Your task to perform on an android device: Go to internet settings Image 0: 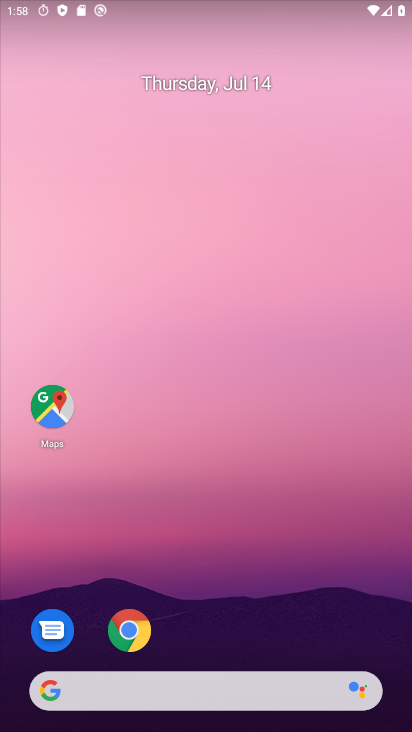
Step 0: drag from (196, 624) to (209, 32)
Your task to perform on an android device: Go to internet settings Image 1: 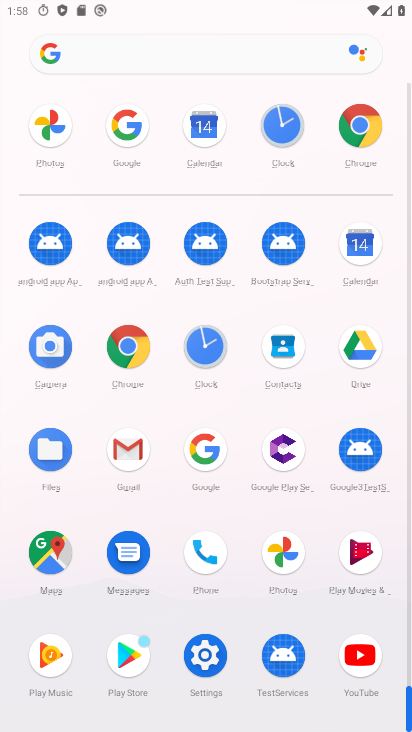
Step 1: click (205, 650)
Your task to perform on an android device: Go to internet settings Image 2: 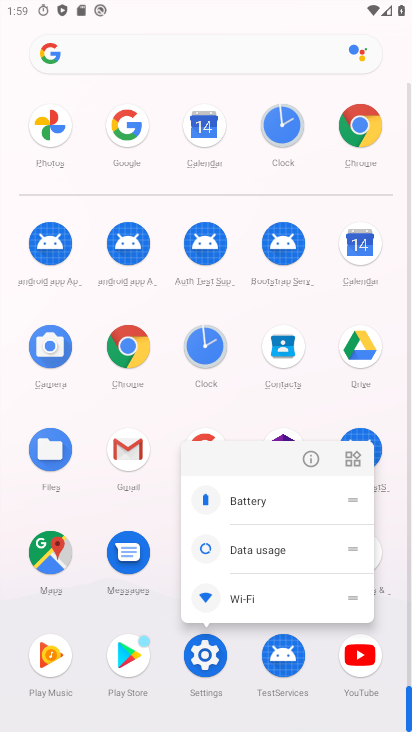
Step 2: click (316, 454)
Your task to perform on an android device: Go to internet settings Image 3: 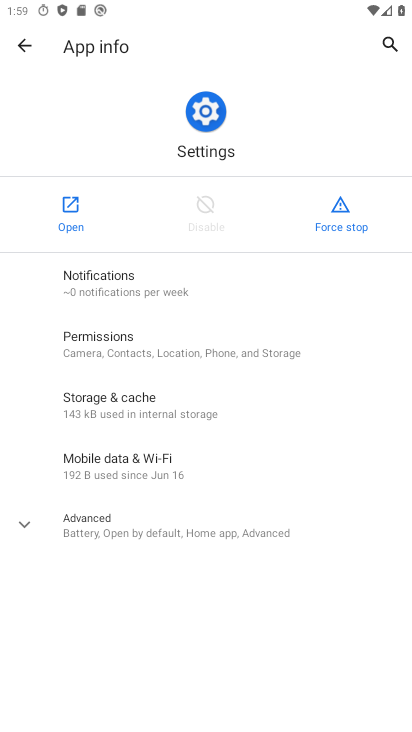
Step 3: click (77, 222)
Your task to perform on an android device: Go to internet settings Image 4: 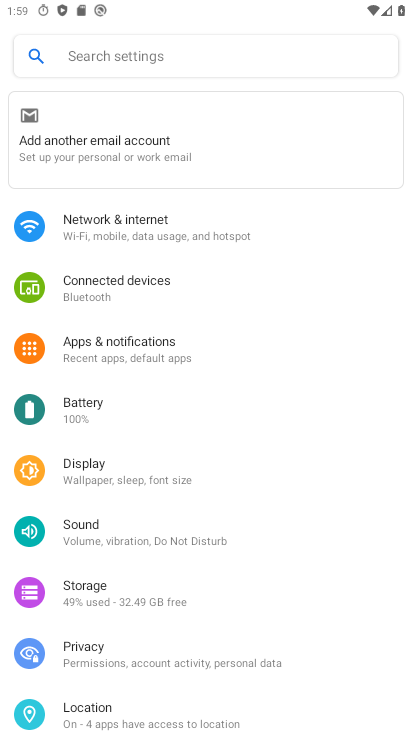
Step 4: drag from (214, 550) to (169, 227)
Your task to perform on an android device: Go to internet settings Image 5: 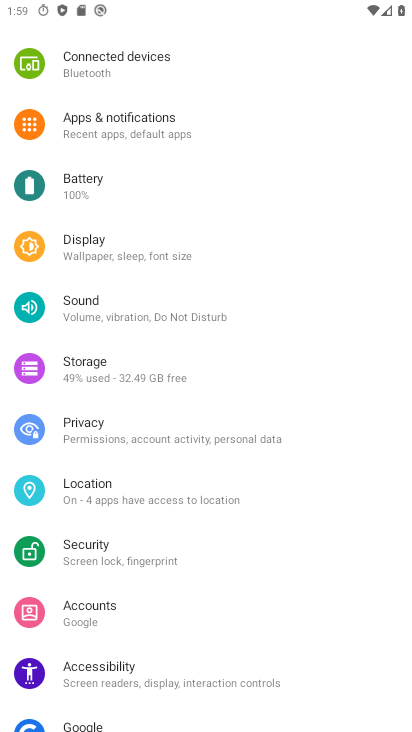
Step 5: drag from (144, 185) to (273, 626)
Your task to perform on an android device: Go to internet settings Image 6: 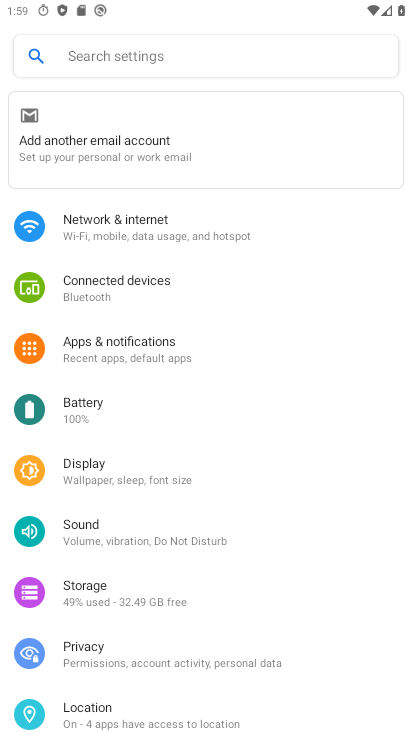
Step 6: click (137, 224)
Your task to perform on an android device: Go to internet settings Image 7: 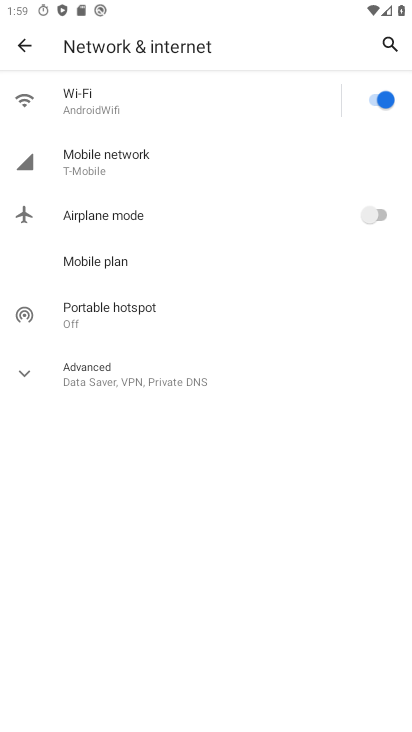
Step 7: task complete